Your task to perform on an android device: uninstall "eBay: The shopping marketplace" Image 0: 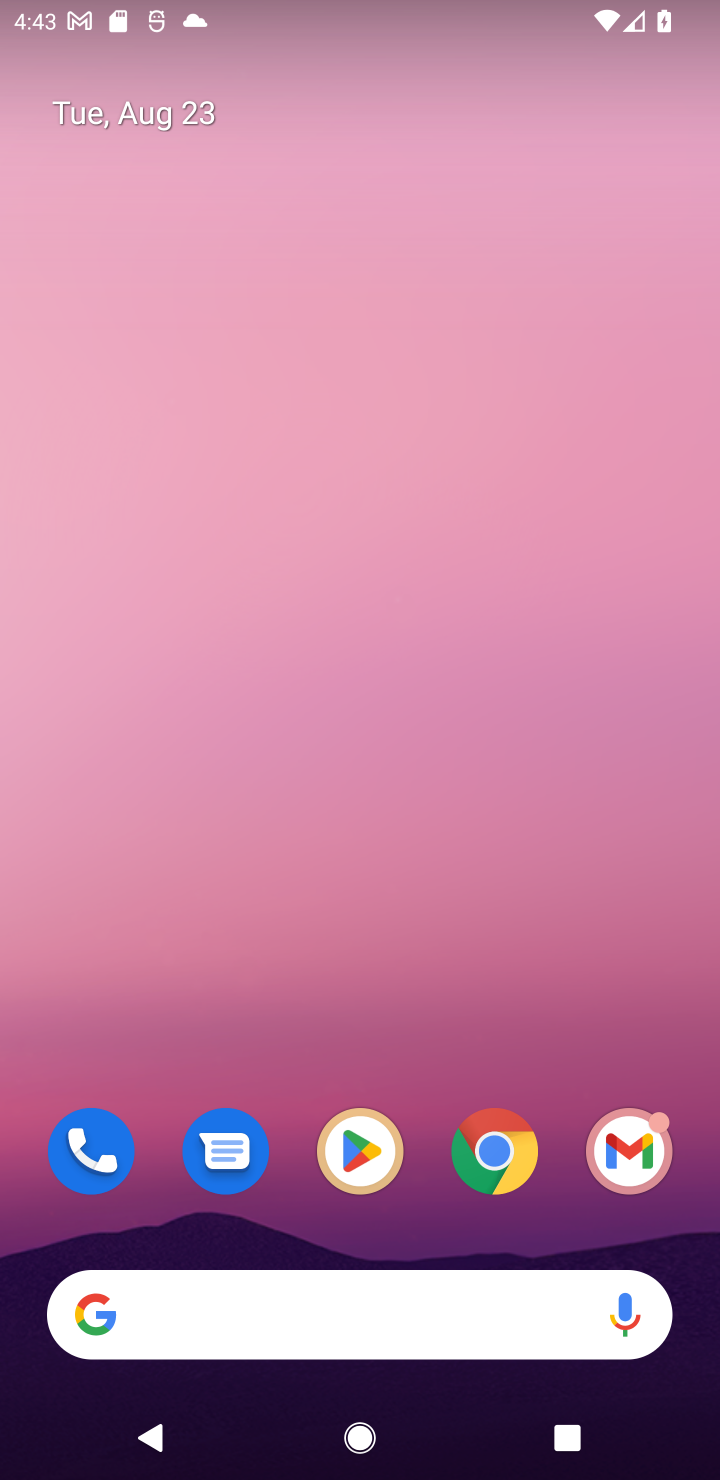
Step 0: press home button
Your task to perform on an android device: uninstall "eBay: The shopping marketplace" Image 1: 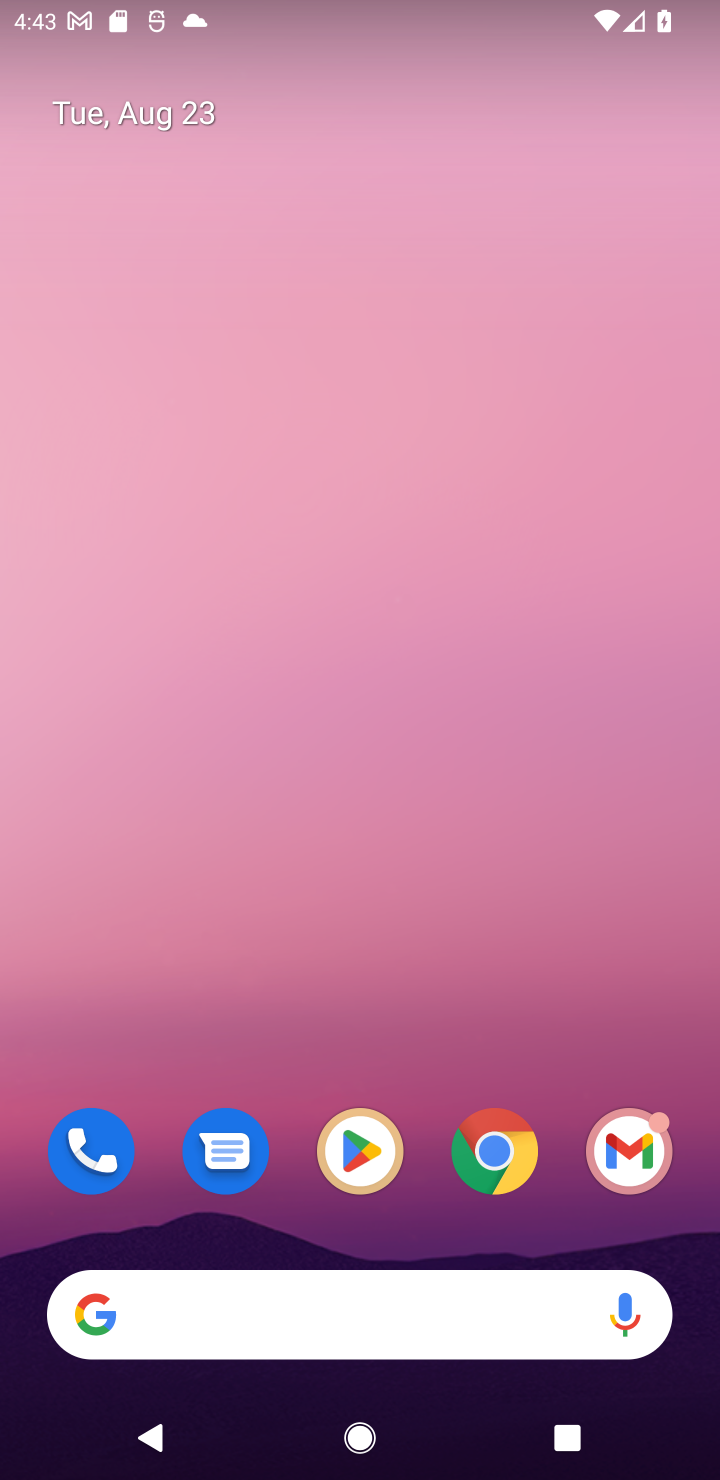
Step 1: click (367, 1156)
Your task to perform on an android device: uninstall "eBay: The shopping marketplace" Image 2: 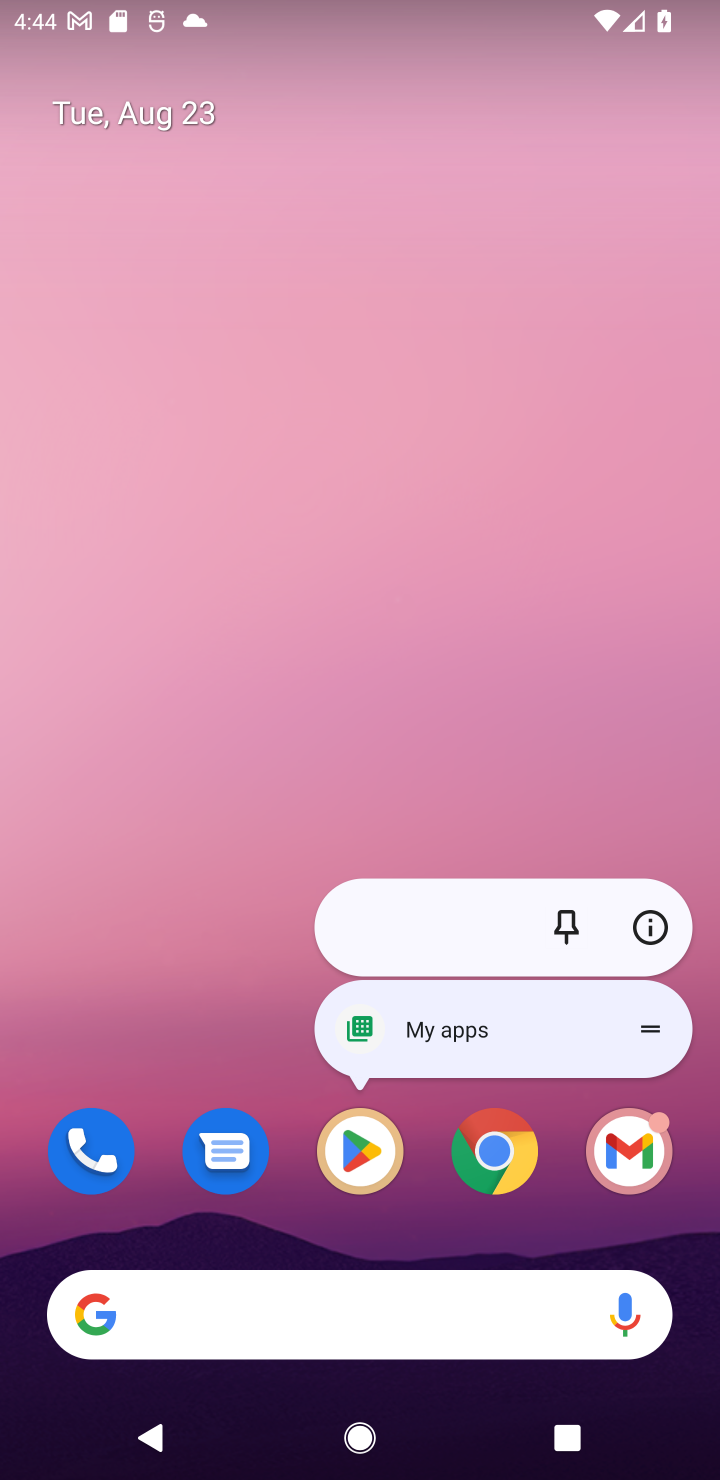
Step 2: click (367, 1163)
Your task to perform on an android device: uninstall "eBay: The shopping marketplace" Image 3: 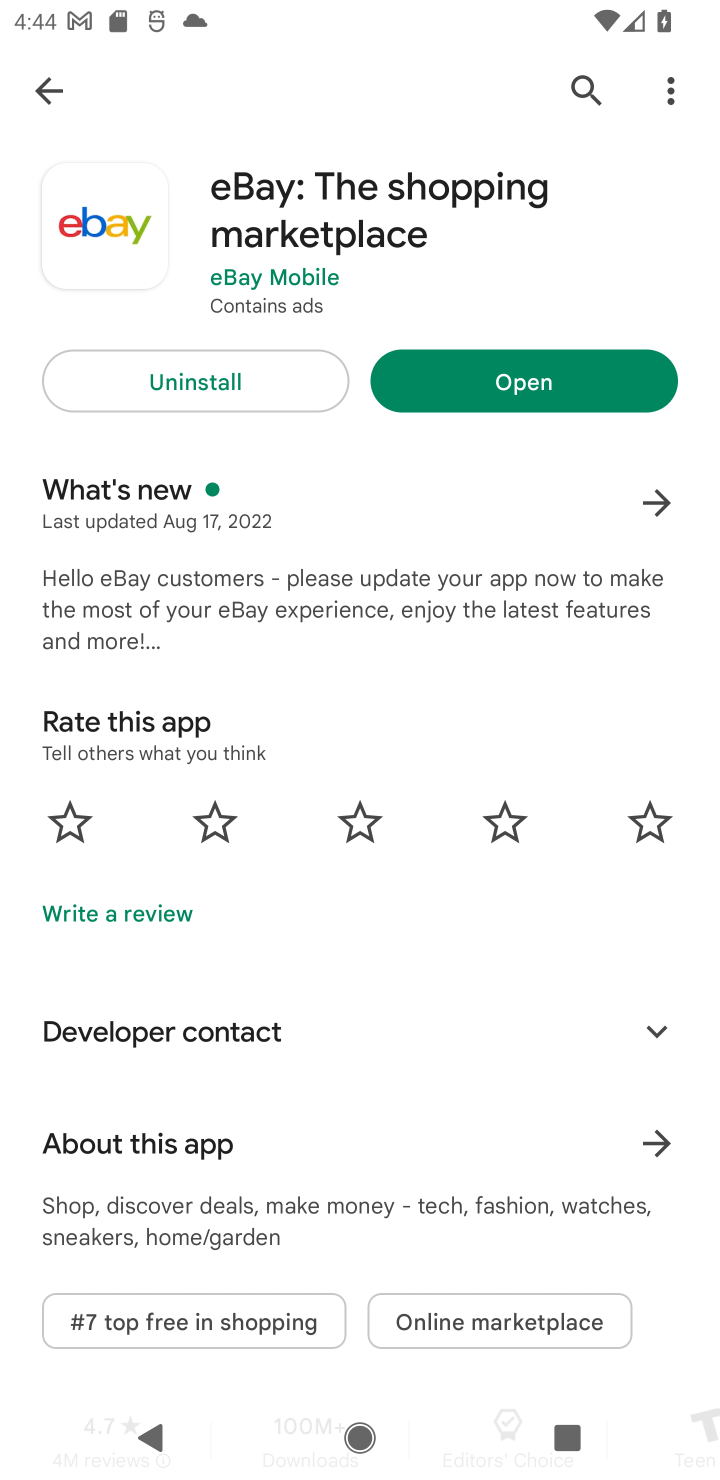
Step 3: click (595, 81)
Your task to perform on an android device: uninstall "eBay: The shopping marketplace" Image 4: 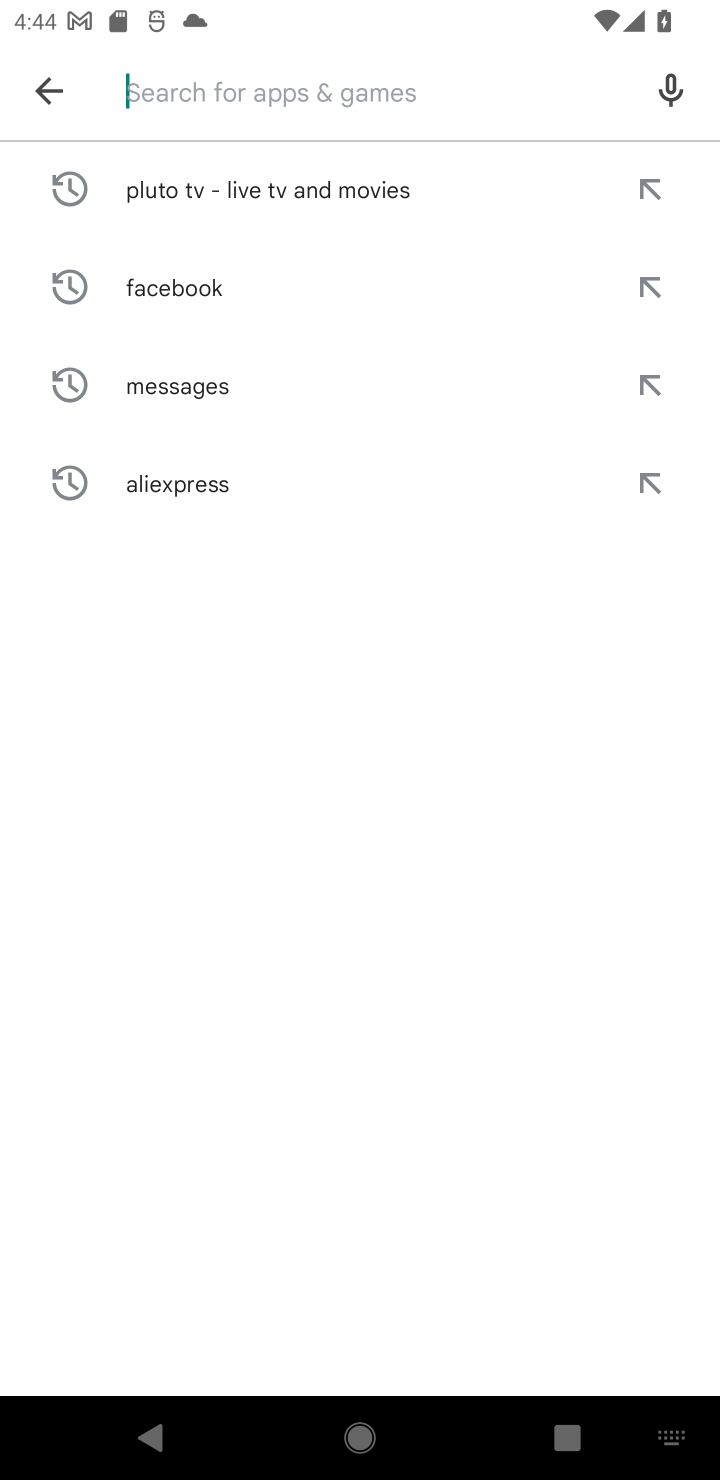
Step 4: type "eBay: The shopping marketplace"
Your task to perform on an android device: uninstall "eBay: The shopping marketplace" Image 5: 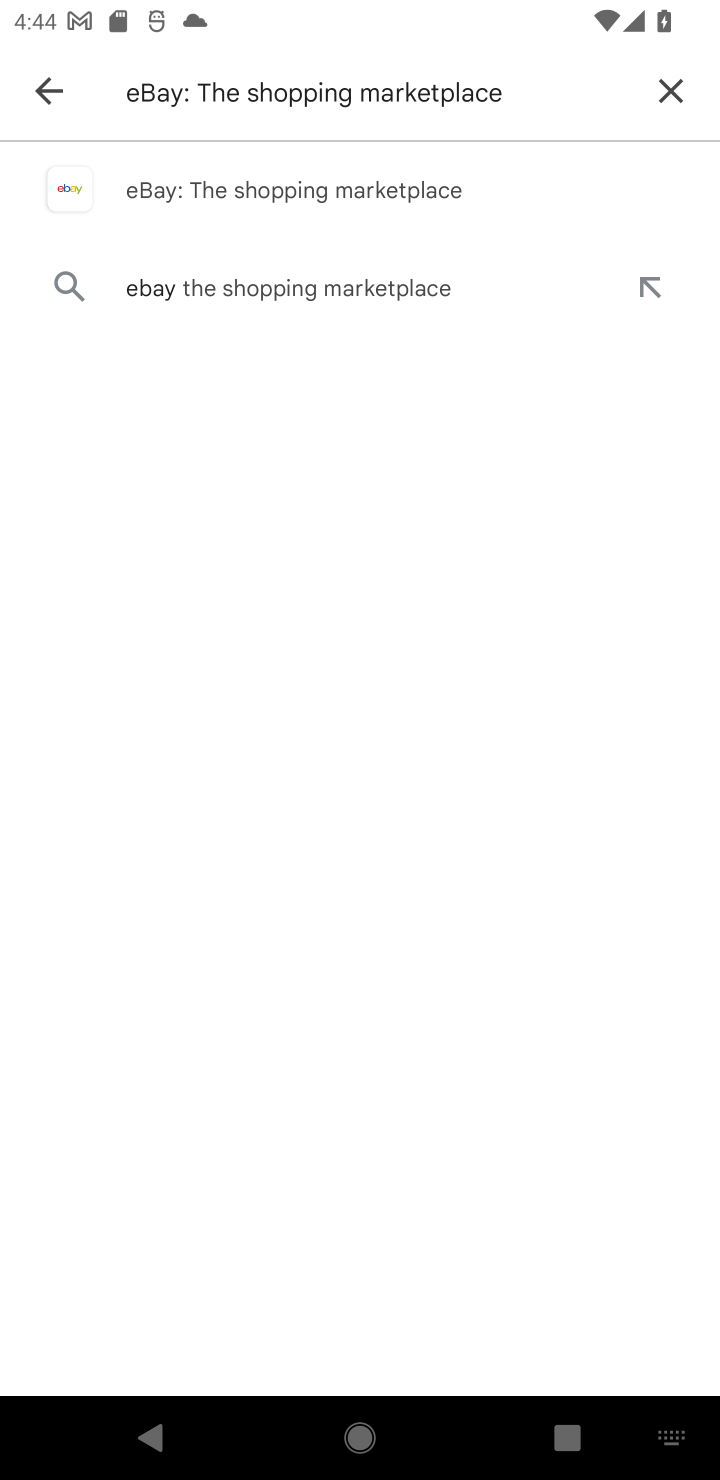
Step 5: click (200, 177)
Your task to perform on an android device: uninstall "eBay: The shopping marketplace" Image 6: 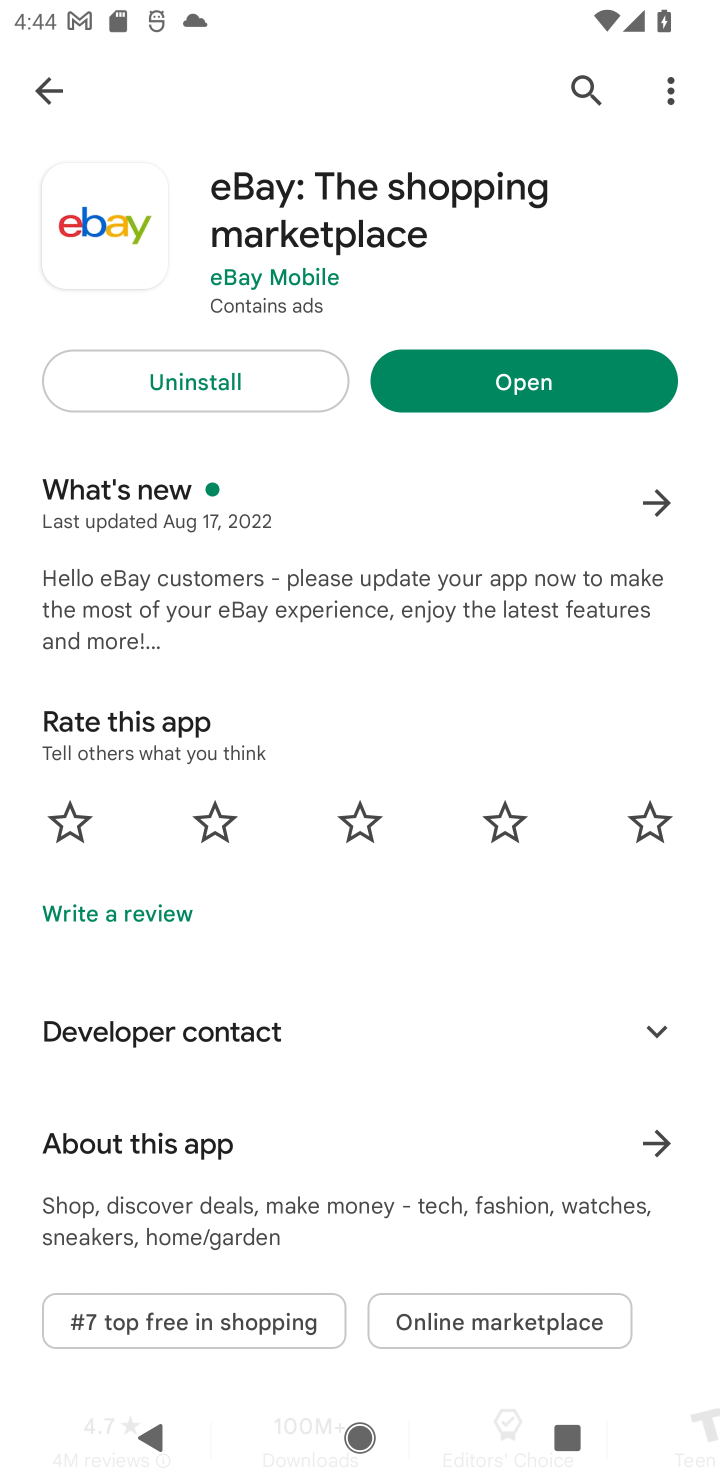
Step 6: click (230, 371)
Your task to perform on an android device: uninstall "eBay: The shopping marketplace" Image 7: 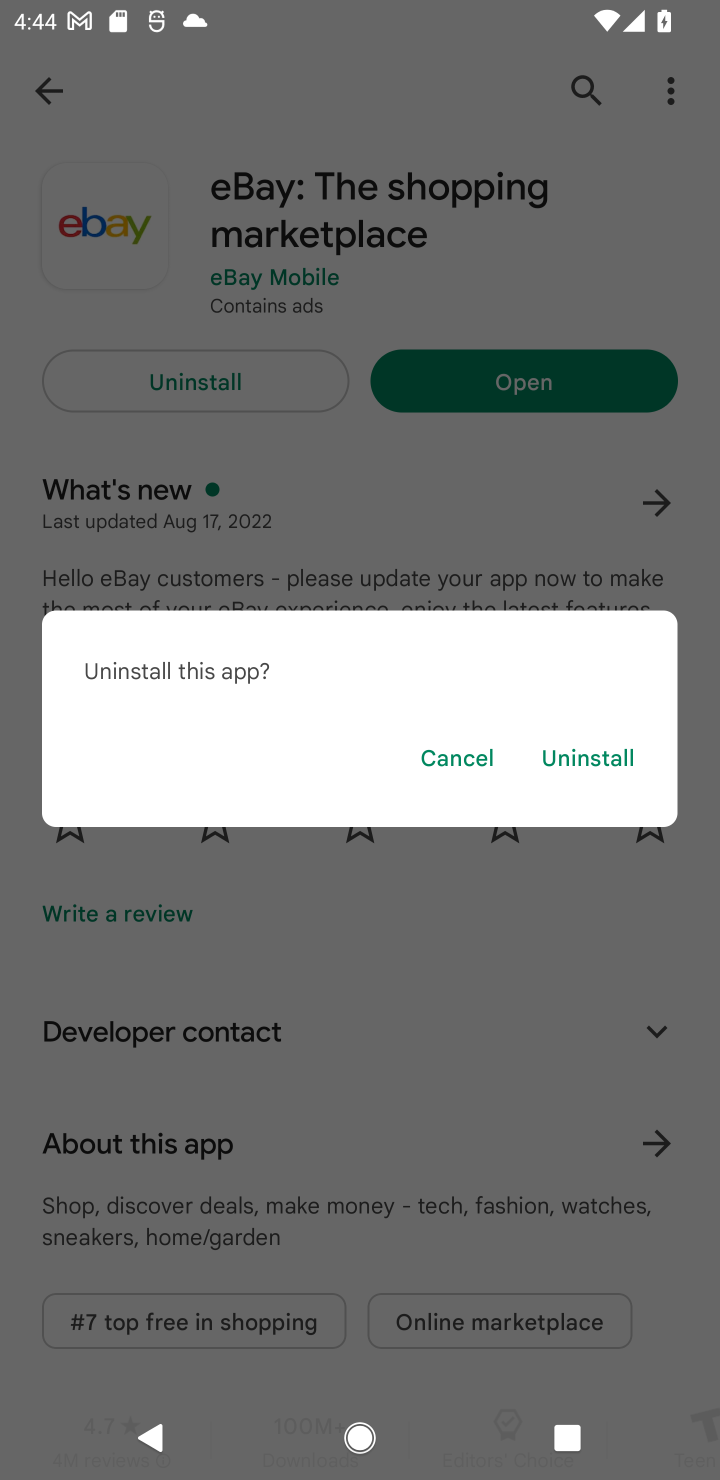
Step 7: click (546, 756)
Your task to perform on an android device: uninstall "eBay: The shopping marketplace" Image 8: 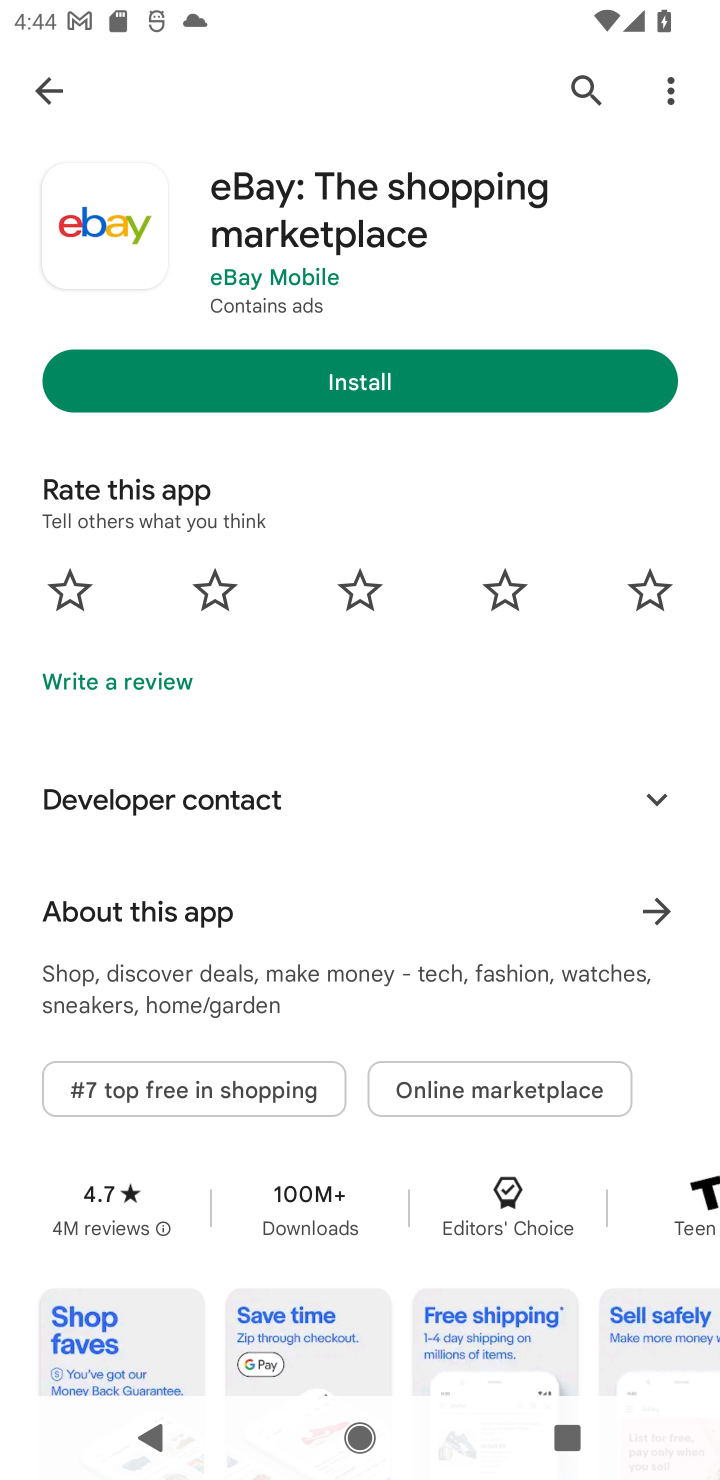
Step 8: task complete